Your task to perform on an android device: turn off priority inbox in the gmail app Image 0: 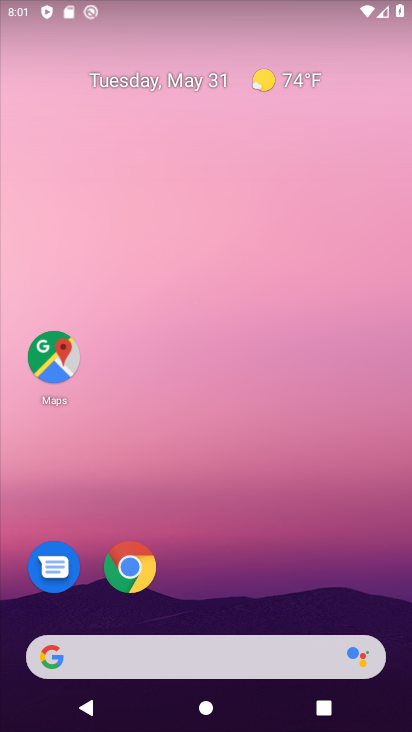
Step 0: drag from (253, 718) to (264, 269)
Your task to perform on an android device: turn off priority inbox in the gmail app Image 1: 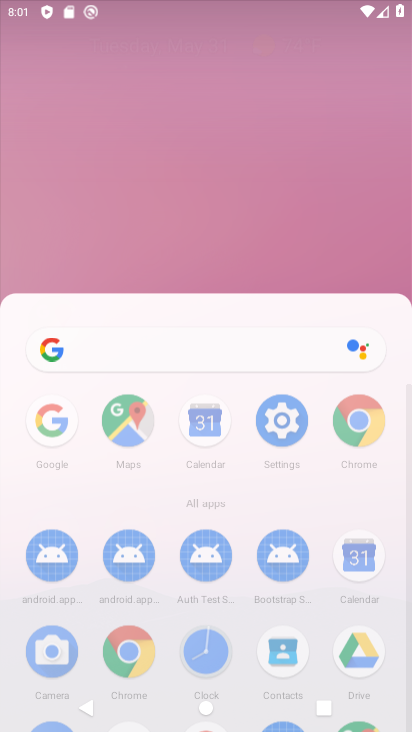
Step 1: drag from (267, 667) to (266, 6)
Your task to perform on an android device: turn off priority inbox in the gmail app Image 2: 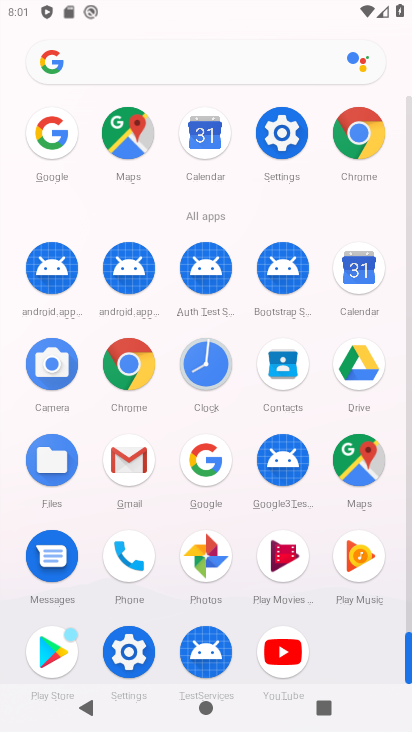
Step 2: click (130, 451)
Your task to perform on an android device: turn off priority inbox in the gmail app Image 3: 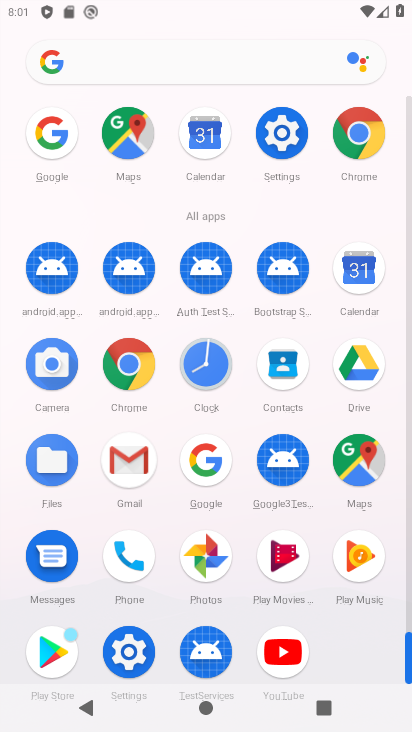
Step 3: click (130, 451)
Your task to perform on an android device: turn off priority inbox in the gmail app Image 4: 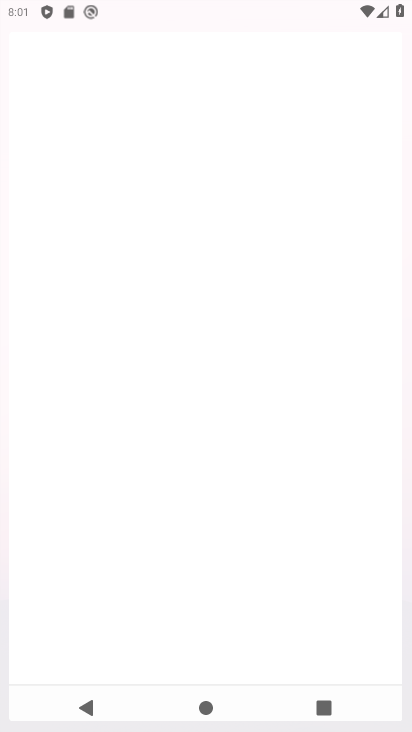
Step 4: click (131, 452)
Your task to perform on an android device: turn off priority inbox in the gmail app Image 5: 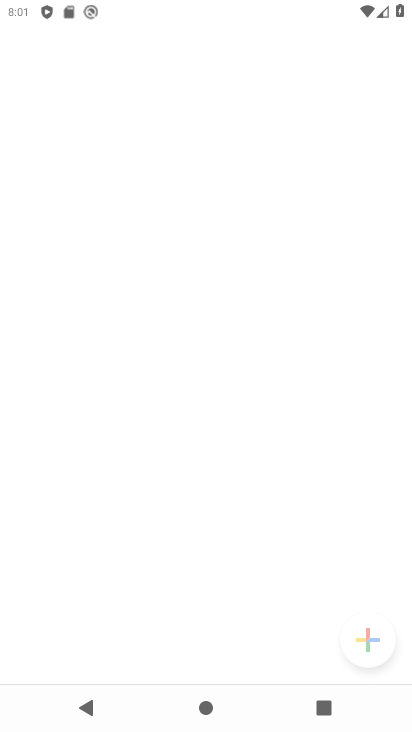
Step 5: click (132, 452)
Your task to perform on an android device: turn off priority inbox in the gmail app Image 6: 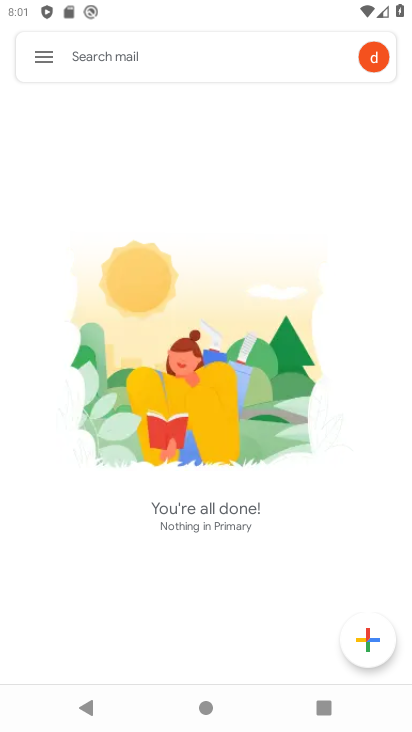
Step 6: click (38, 58)
Your task to perform on an android device: turn off priority inbox in the gmail app Image 7: 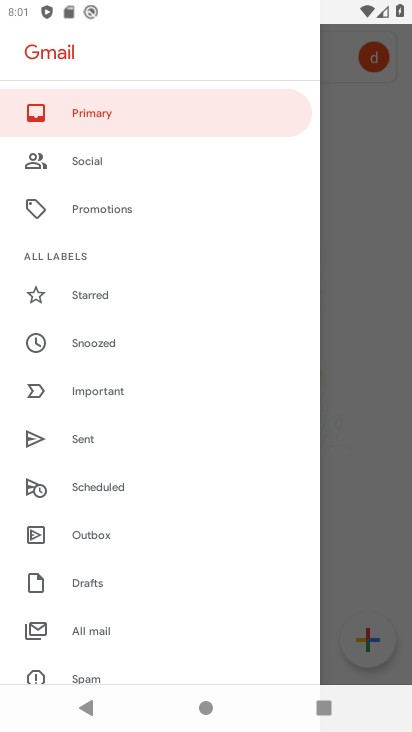
Step 7: drag from (137, 545) to (176, 137)
Your task to perform on an android device: turn off priority inbox in the gmail app Image 8: 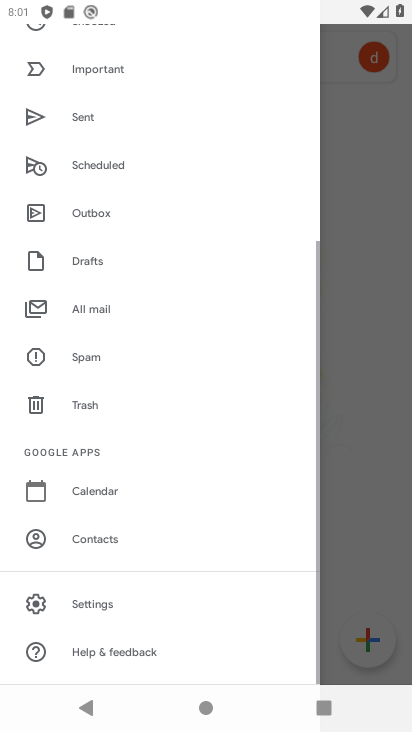
Step 8: click (94, 597)
Your task to perform on an android device: turn off priority inbox in the gmail app Image 9: 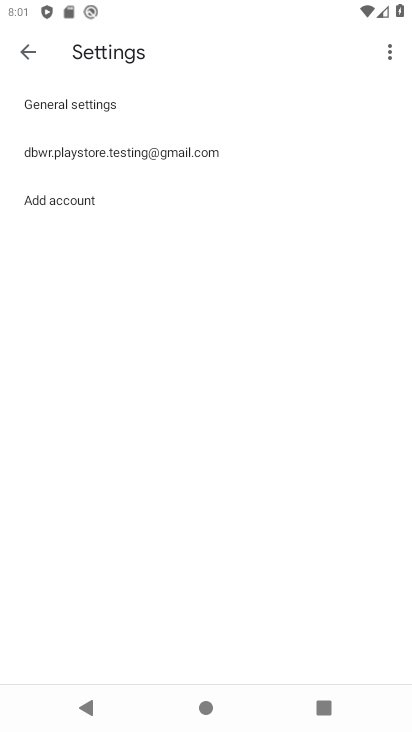
Step 9: click (98, 149)
Your task to perform on an android device: turn off priority inbox in the gmail app Image 10: 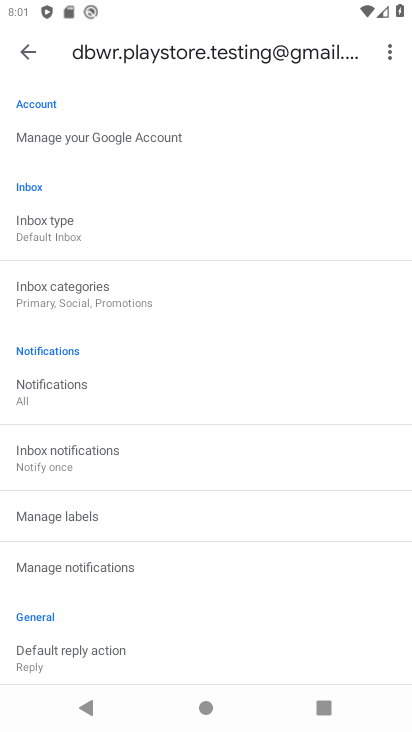
Step 10: click (47, 229)
Your task to perform on an android device: turn off priority inbox in the gmail app Image 11: 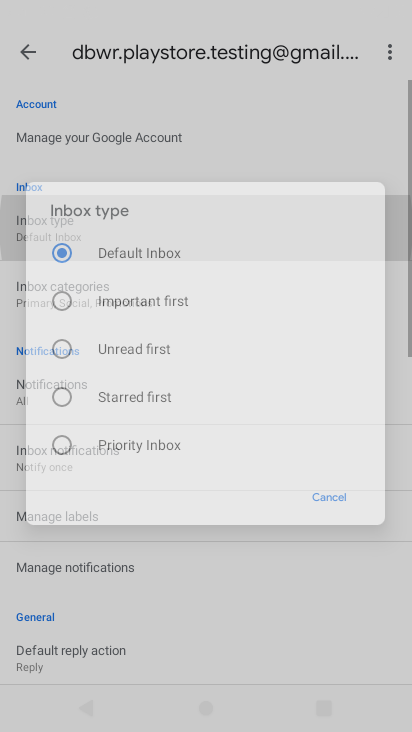
Step 11: click (47, 229)
Your task to perform on an android device: turn off priority inbox in the gmail app Image 12: 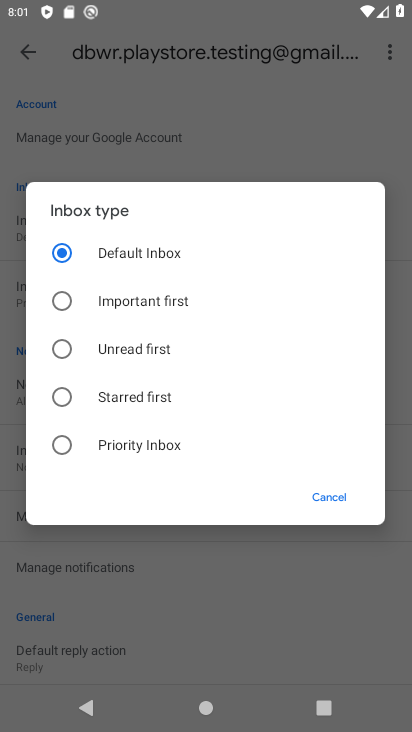
Step 12: click (328, 492)
Your task to perform on an android device: turn off priority inbox in the gmail app Image 13: 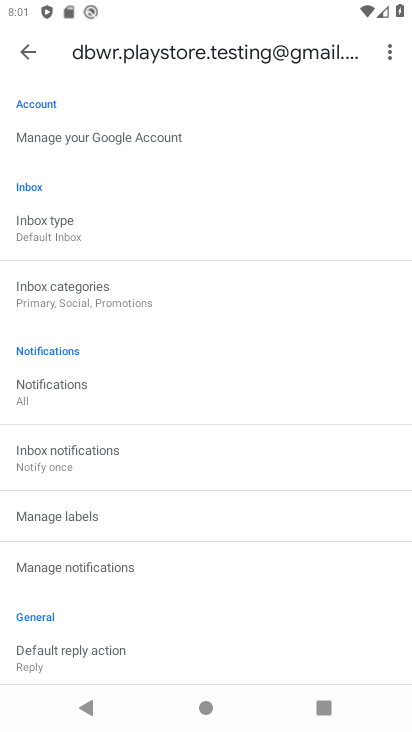
Step 13: task complete